Your task to perform on an android device: search for starred emails in the gmail app Image 0: 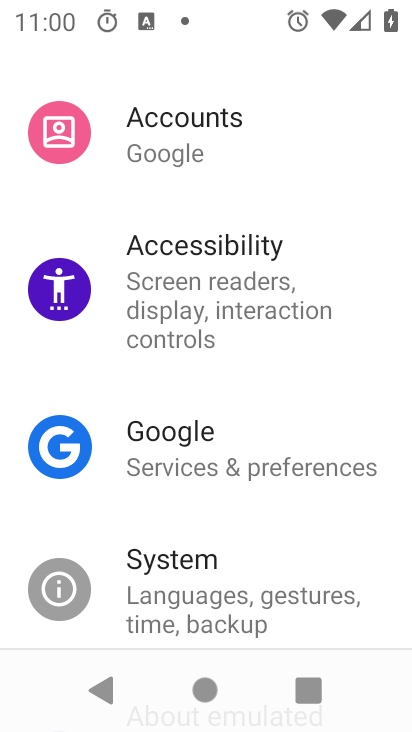
Step 0: press home button
Your task to perform on an android device: search for starred emails in the gmail app Image 1: 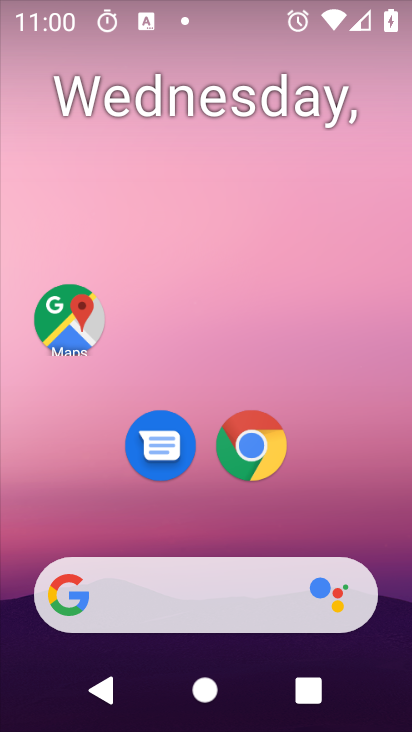
Step 1: drag from (337, 558) to (407, 208)
Your task to perform on an android device: search for starred emails in the gmail app Image 2: 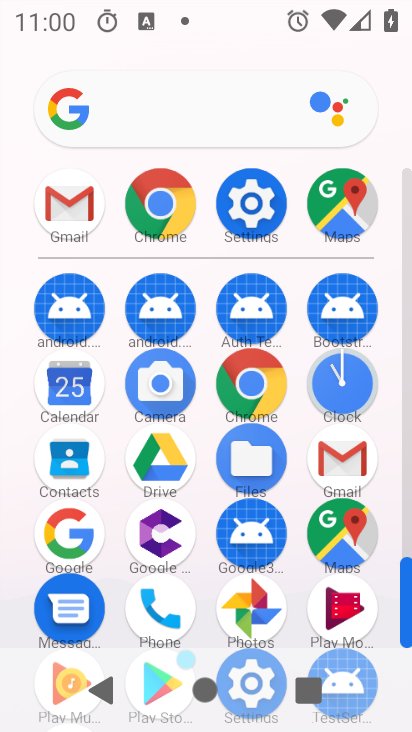
Step 2: click (348, 454)
Your task to perform on an android device: search for starred emails in the gmail app Image 3: 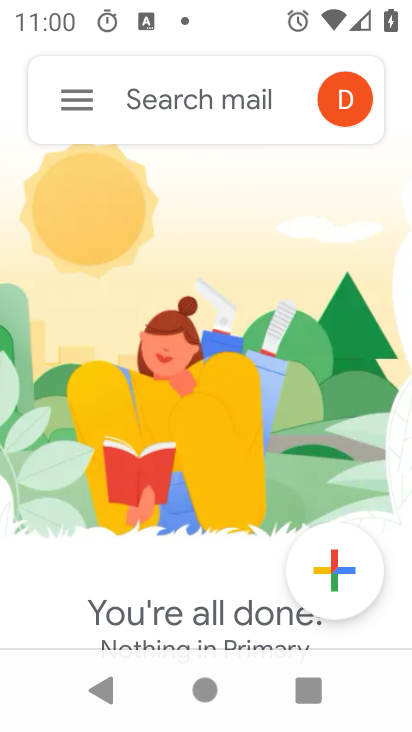
Step 3: click (70, 98)
Your task to perform on an android device: search for starred emails in the gmail app Image 4: 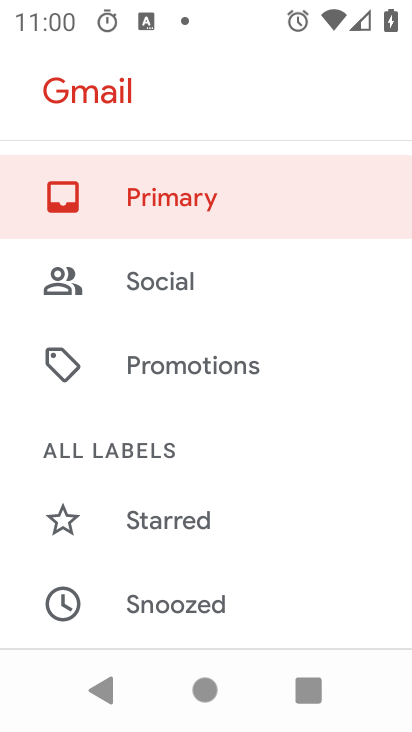
Step 4: click (128, 522)
Your task to perform on an android device: search for starred emails in the gmail app Image 5: 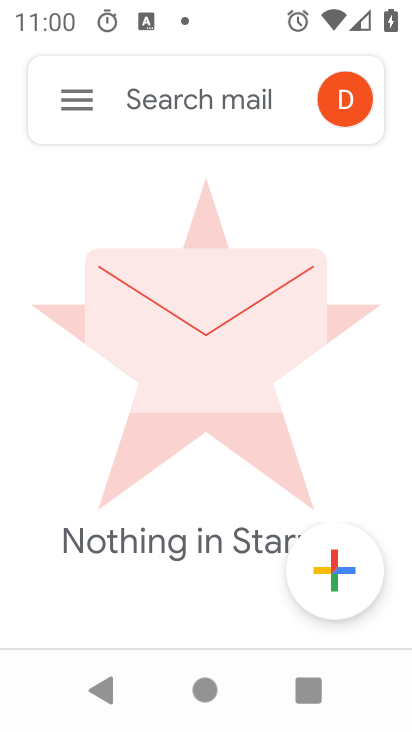
Step 5: task complete